Your task to perform on an android device: open chrome and create a bookmark for the current page Image 0: 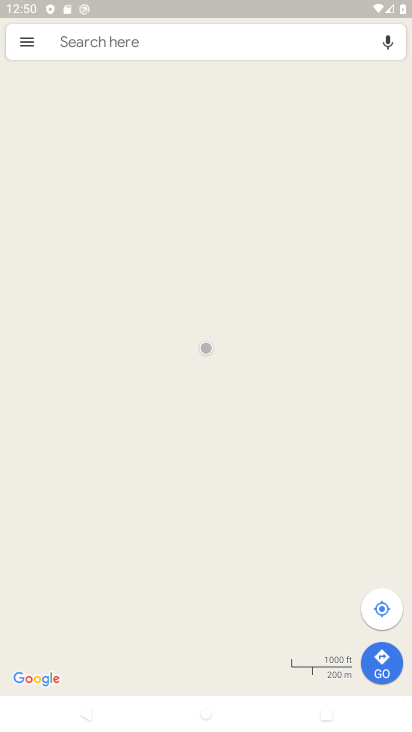
Step 0: press home button
Your task to perform on an android device: open chrome and create a bookmark for the current page Image 1: 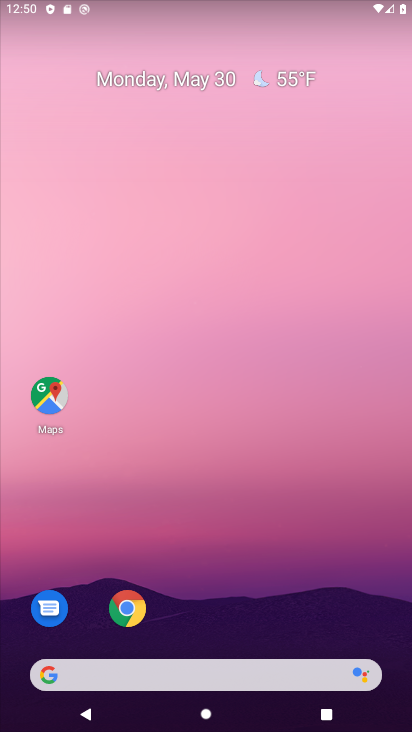
Step 1: click (137, 609)
Your task to perform on an android device: open chrome and create a bookmark for the current page Image 2: 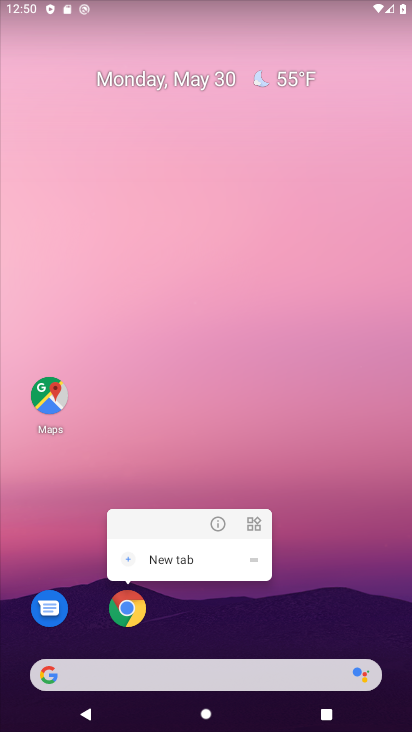
Step 2: click (129, 607)
Your task to perform on an android device: open chrome and create a bookmark for the current page Image 3: 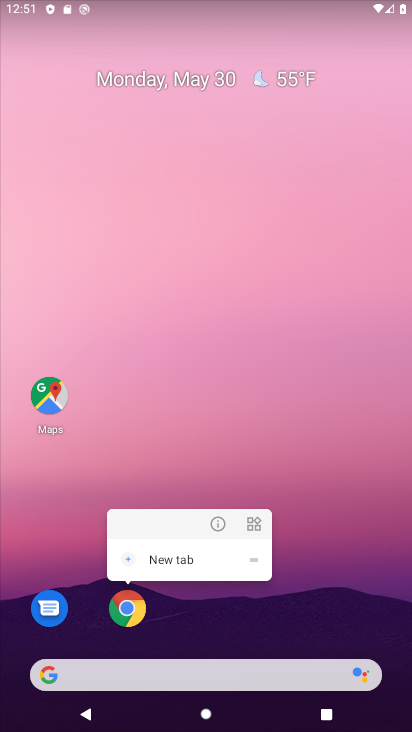
Step 3: click (127, 606)
Your task to perform on an android device: open chrome and create a bookmark for the current page Image 4: 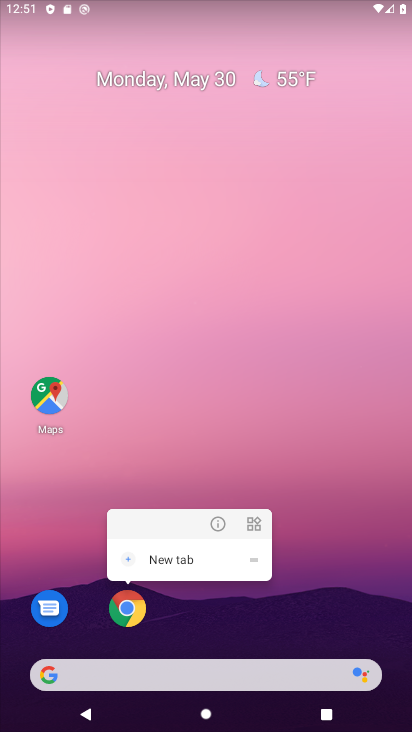
Step 4: click (135, 610)
Your task to perform on an android device: open chrome and create a bookmark for the current page Image 5: 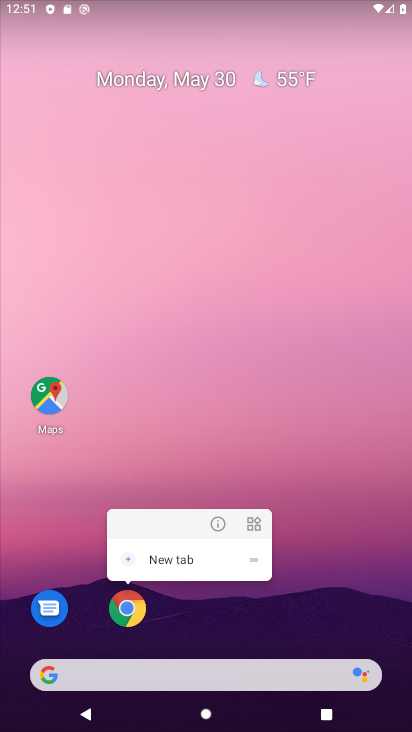
Step 5: click (134, 613)
Your task to perform on an android device: open chrome and create a bookmark for the current page Image 6: 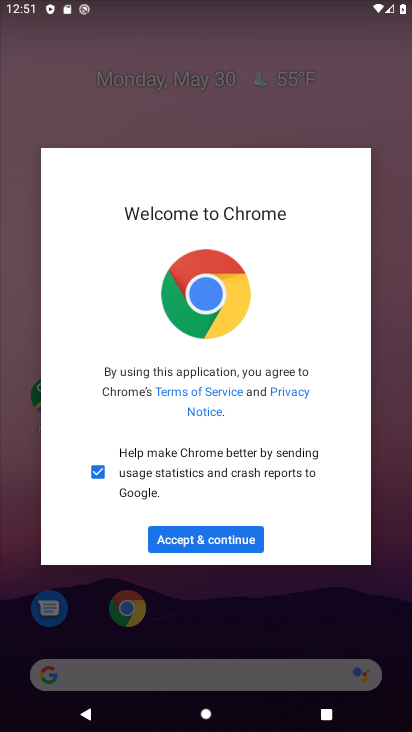
Step 6: click (195, 547)
Your task to perform on an android device: open chrome and create a bookmark for the current page Image 7: 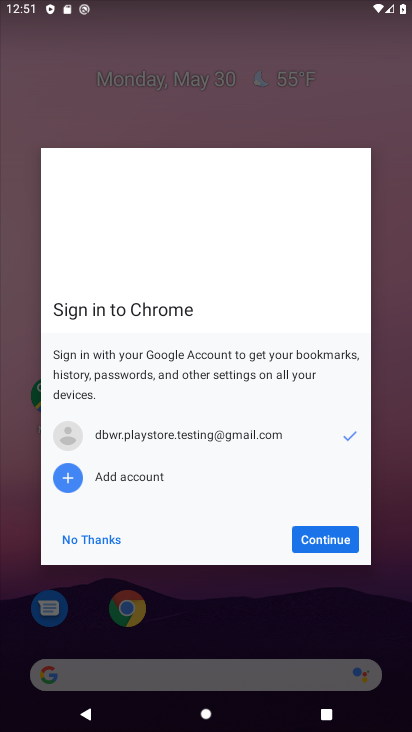
Step 7: click (342, 542)
Your task to perform on an android device: open chrome and create a bookmark for the current page Image 8: 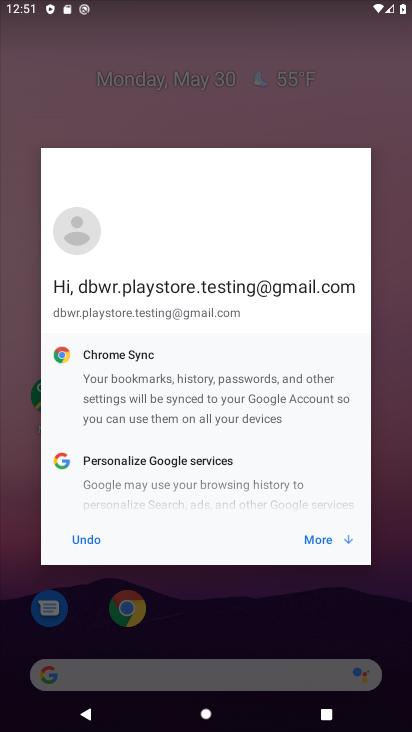
Step 8: click (342, 542)
Your task to perform on an android device: open chrome and create a bookmark for the current page Image 9: 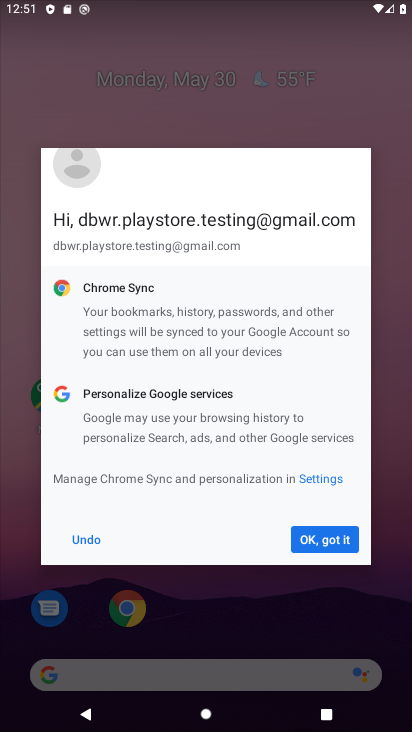
Step 9: click (342, 542)
Your task to perform on an android device: open chrome and create a bookmark for the current page Image 10: 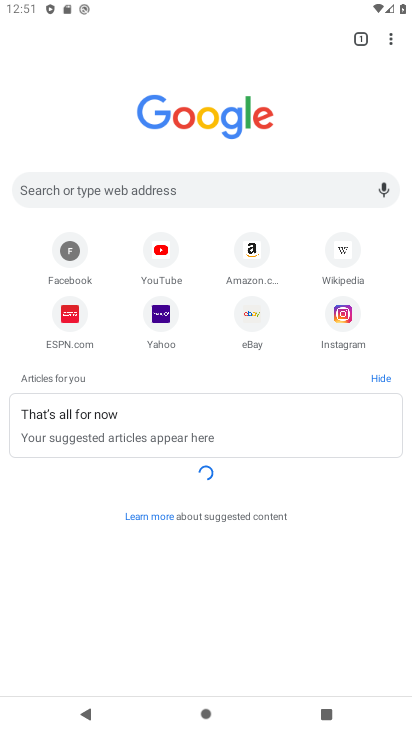
Step 10: task complete